Your task to perform on an android device: change the clock style Image 0: 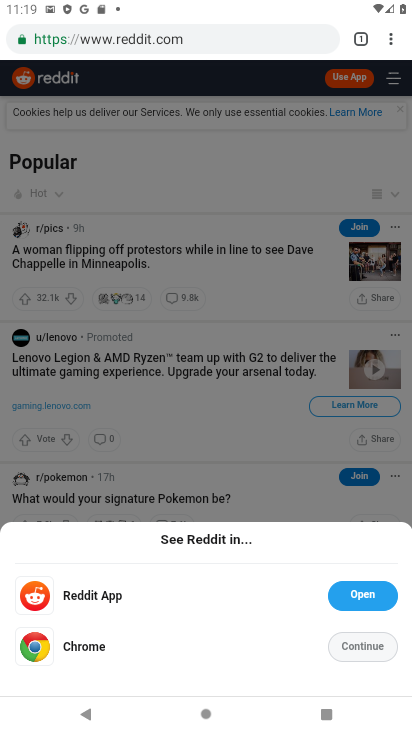
Step 0: press home button
Your task to perform on an android device: change the clock style Image 1: 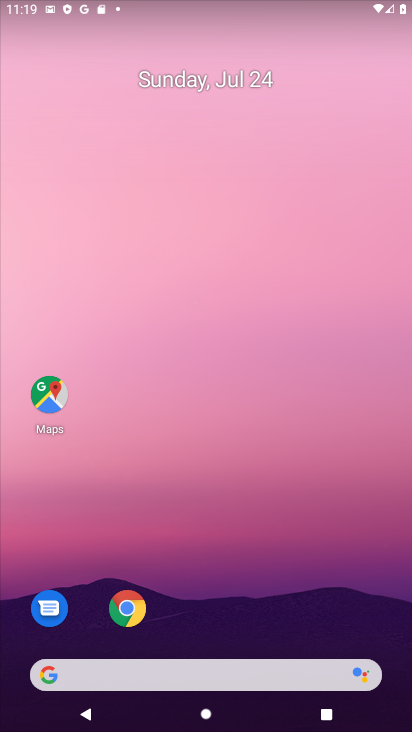
Step 1: drag from (315, 551) to (155, 58)
Your task to perform on an android device: change the clock style Image 2: 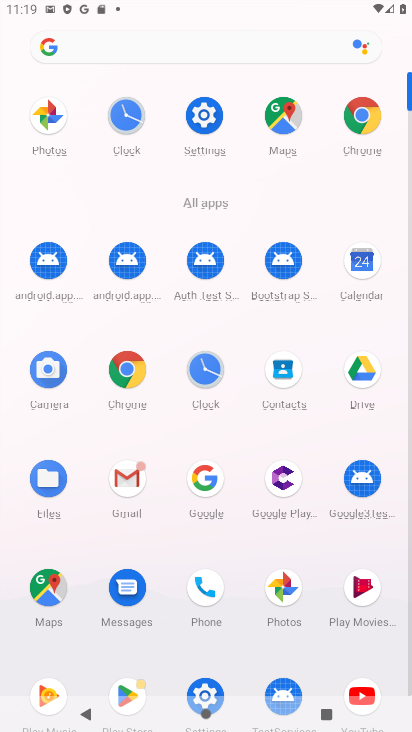
Step 2: click (197, 357)
Your task to perform on an android device: change the clock style Image 3: 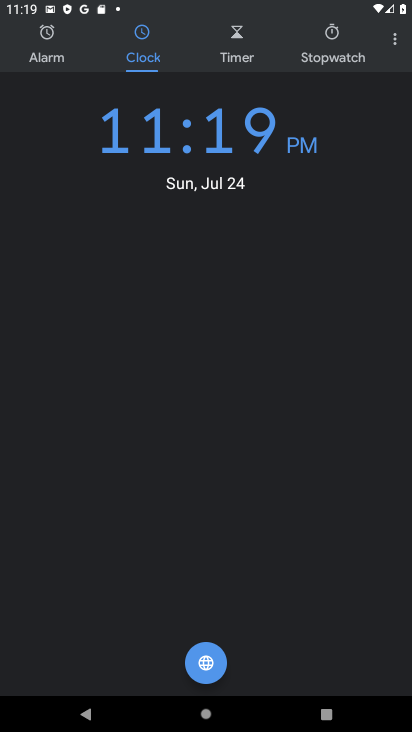
Step 3: click (400, 34)
Your task to perform on an android device: change the clock style Image 4: 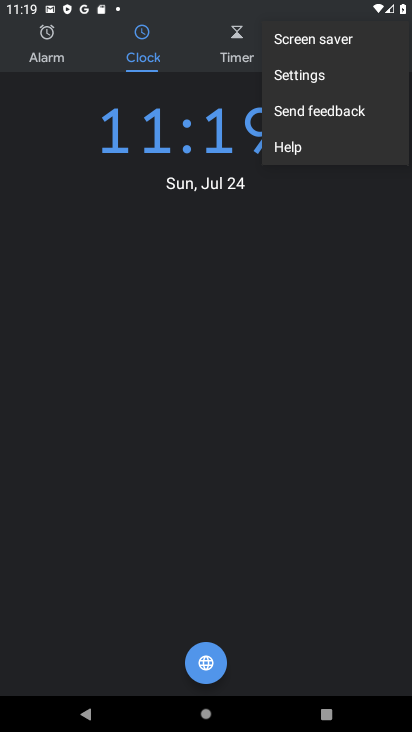
Step 4: click (325, 67)
Your task to perform on an android device: change the clock style Image 5: 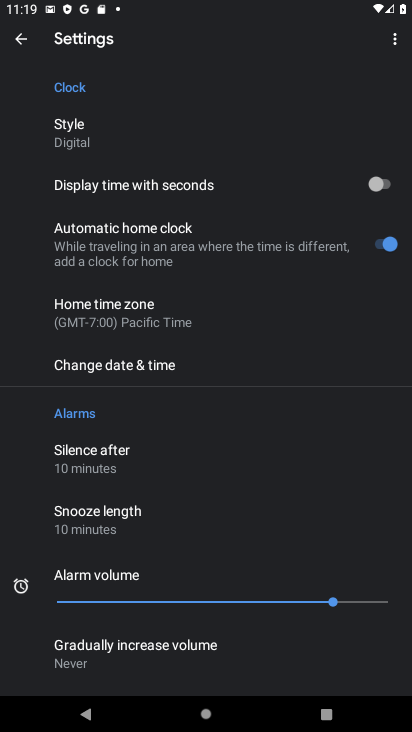
Step 5: click (79, 134)
Your task to perform on an android device: change the clock style Image 6: 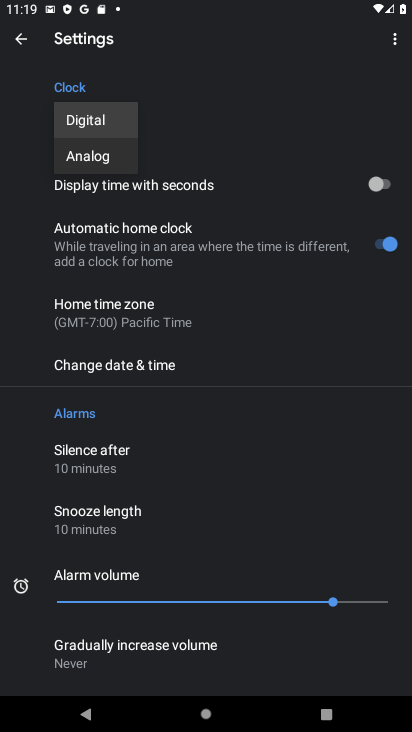
Step 6: click (115, 164)
Your task to perform on an android device: change the clock style Image 7: 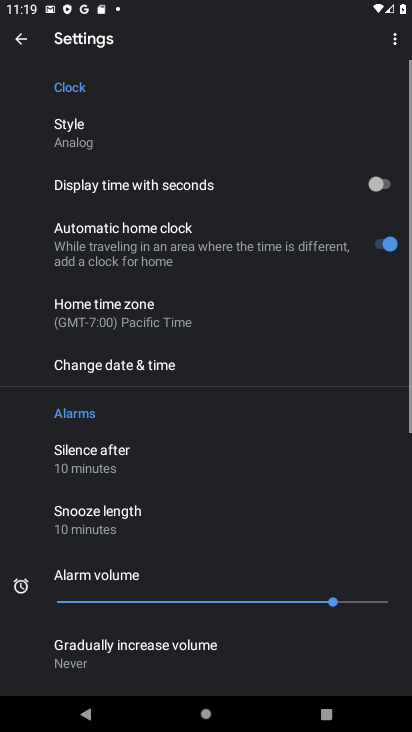
Step 7: task complete